Your task to perform on an android device: Open calendar and show me the fourth week of next month Image 0: 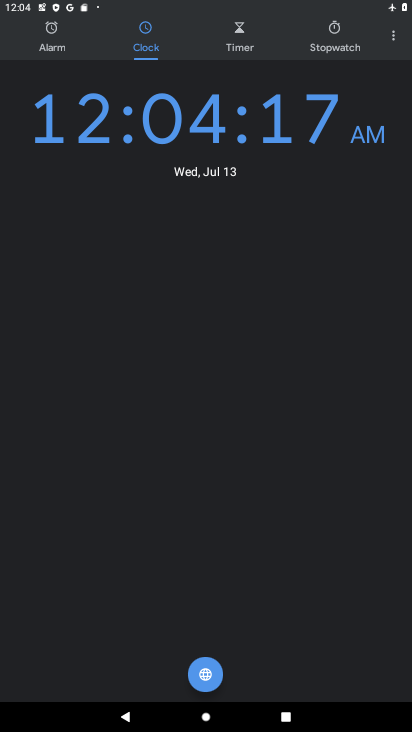
Step 0: press home button
Your task to perform on an android device: Open calendar and show me the fourth week of next month Image 1: 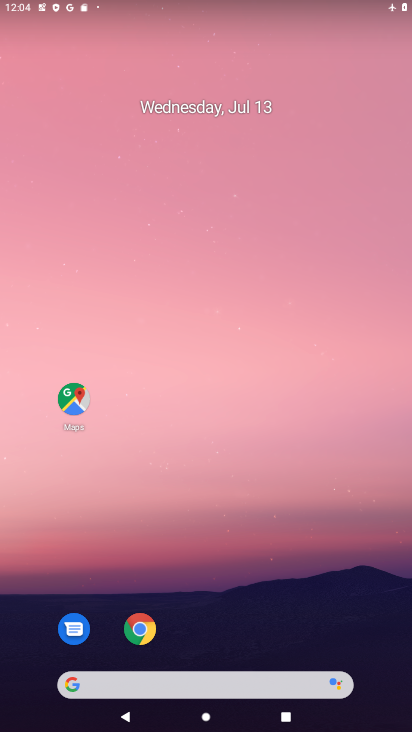
Step 1: drag from (207, 644) to (234, 338)
Your task to perform on an android device: Open calendar and show me the fourth week of next month Image 2: 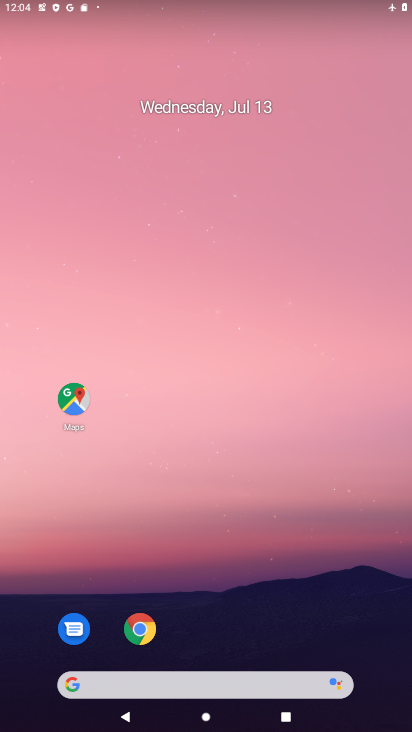
Step 2: drag from (204, 659) to (204, 232)
Your task to perform on an android device: Open calendar and show me the fourth week of next month Image 3: 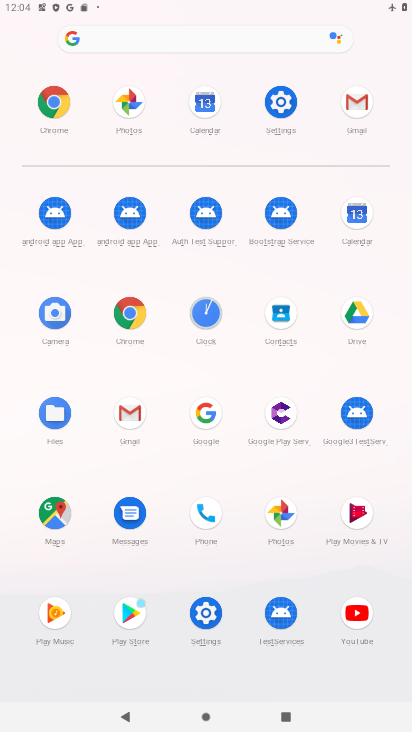
Step 3: click (359, 215)
Your task to perform on an android device: Open calendar and show me the fourth week of next month Image 4: 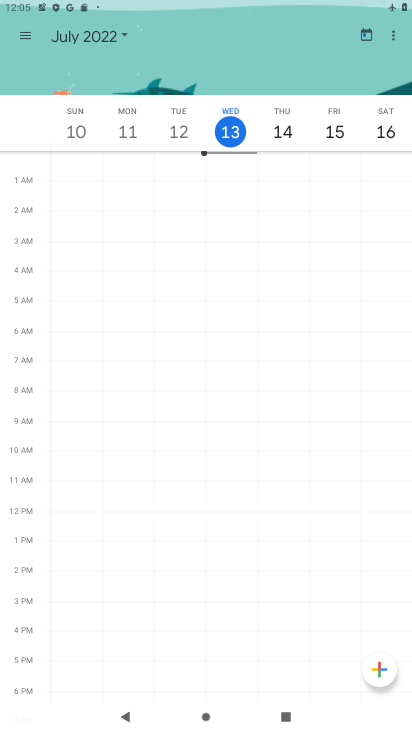
Step 4: click (25, 33)
Your task to perform on an android device: Open calendar and show me the fourth week of next month Image 5: 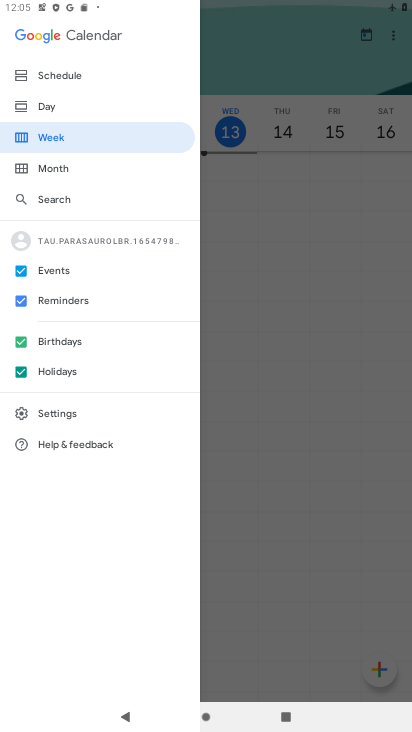
Step 5: click (70, 157)
Your task to perform on an android device: Open calendar and show me the fourth week of next month Image 6: 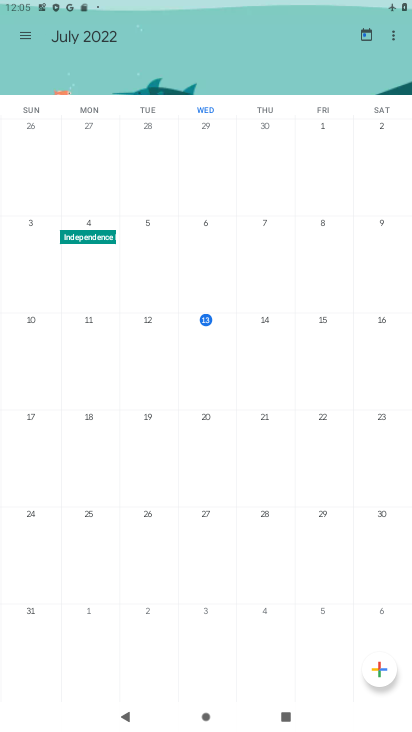
Step 6: task complete